Your task to perform on an android device: open app "PUBG MOBILE" (install if not already installed) Image 0: 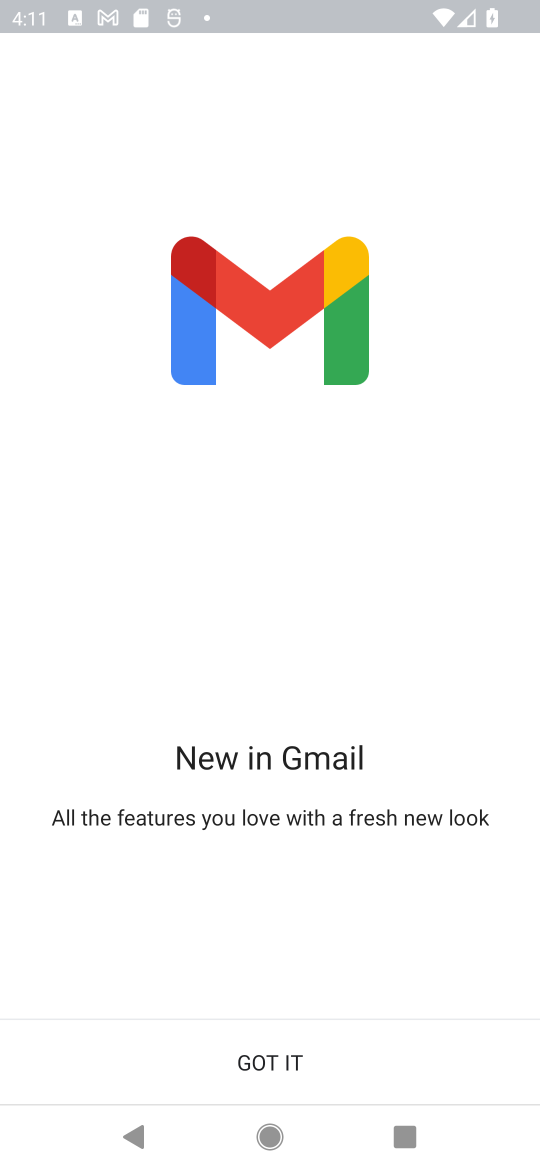
Step 0: press home button
Your task to perform on an android device: open app "PUBG MOBILE" (install if not already installed) Image 1: 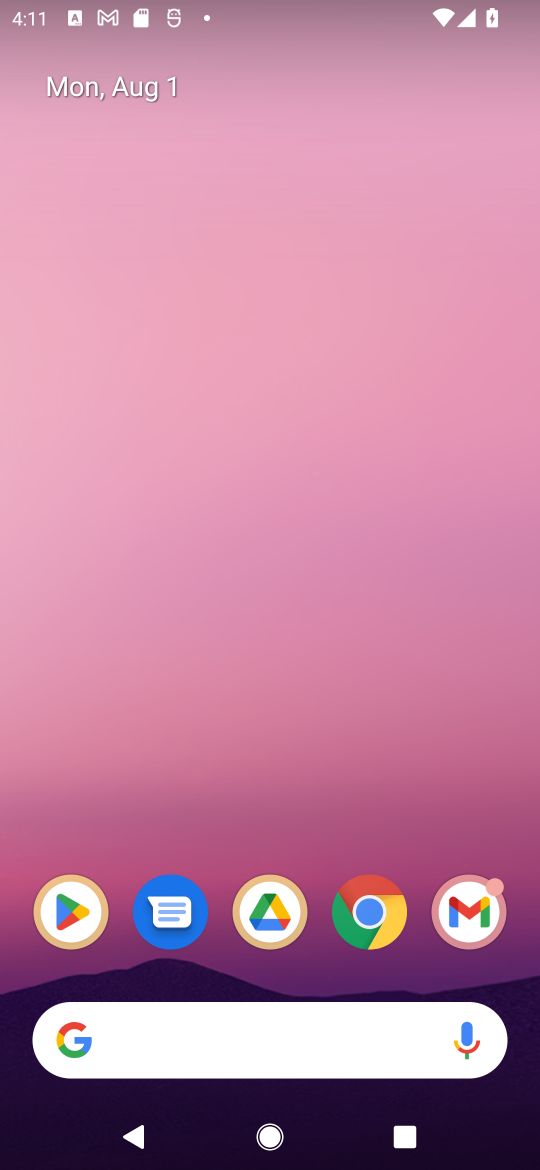
Step 1: click (66, 925)
Your task to perform on an android device: open app "PUBG MOBILE" (install if not already installed) Image 2: 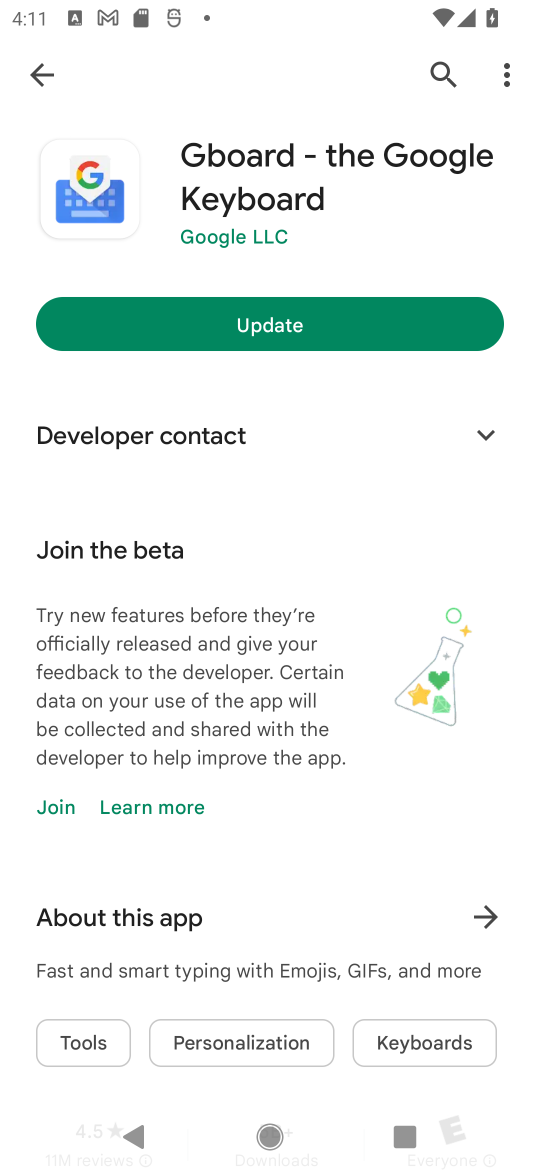
Step 2: click (440, 74)
Your task to perform on an android device: open app "PUBG MOBILE" (install if not already installed) Image 3: 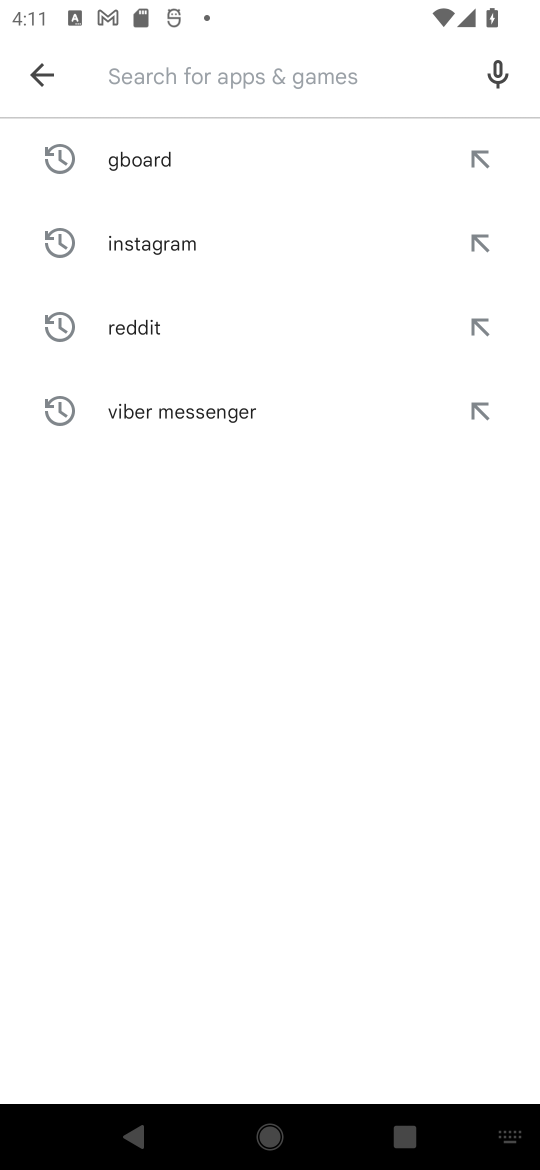
Step 3: type "PUBG MOBILE"
Your task to perform on an android device: open app "PUBG MOBILE" (install if not already installed) Image 4: 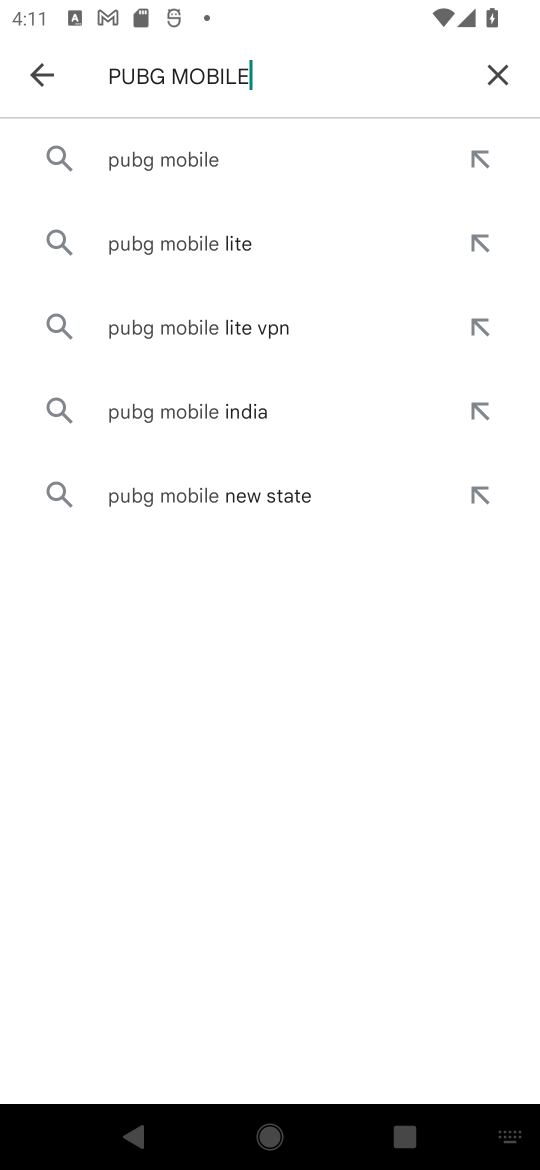
Step 4: click (107, 163)
Your task to perform on an android device: open app "PUBG MOBILE" (install if not already installed) Image 5: 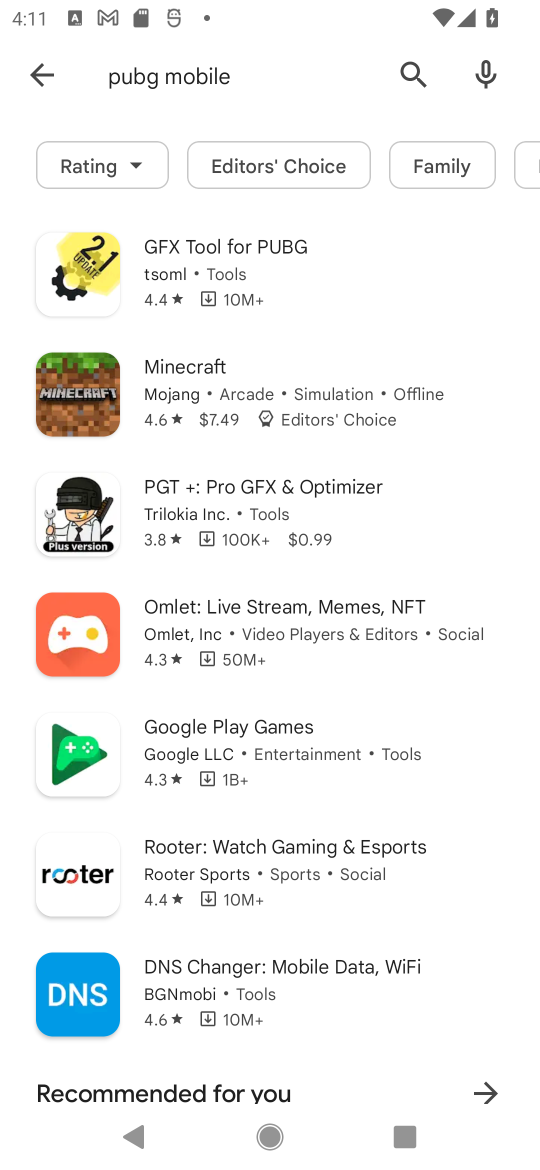
Step 5: task complete